Your task to perform on an android device: turn off improve location accuracy Image 0: 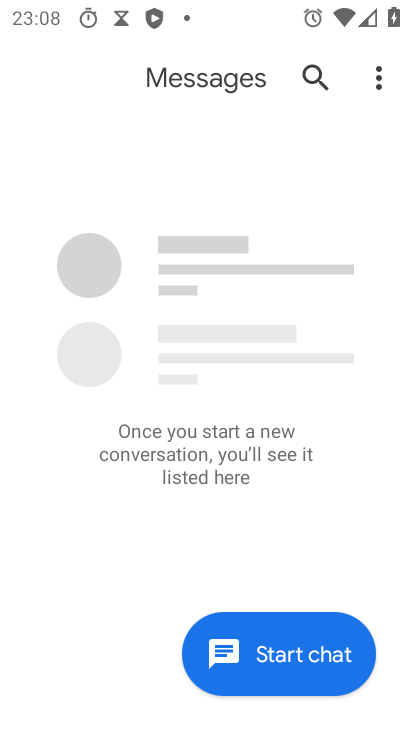
Step 0: press back button
Your task to perform on an android device: turn off improve location accuracy Image 1: 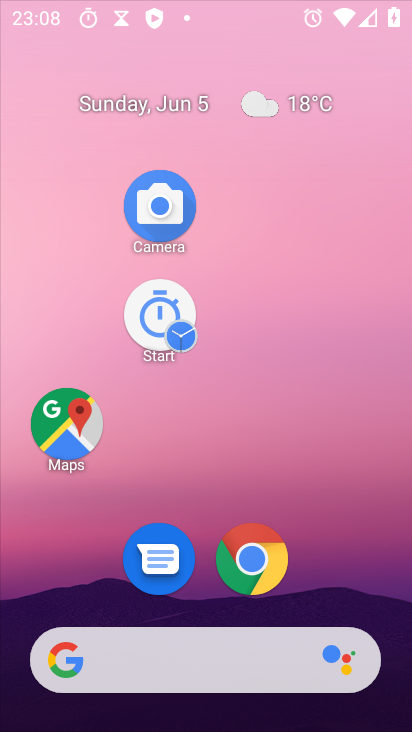
Step 1: drag from (250, 708) to (168, 114)
Your task to perform on an android device: turn off improve location accuracy Image 2: 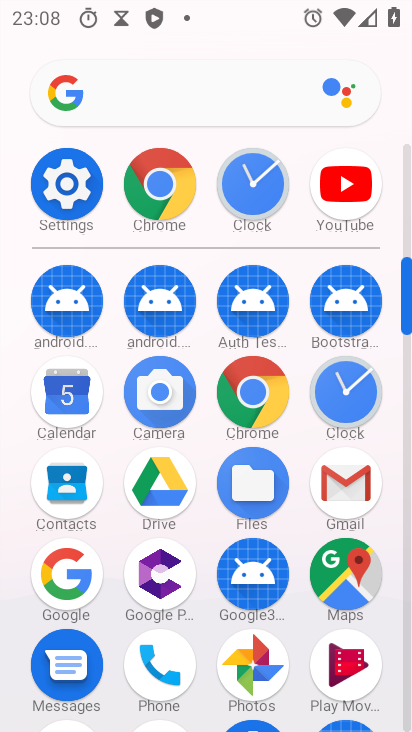
Step 2: click (71, 190)
Your task to perform on an android device: turn off improve location accuracy Image 3: 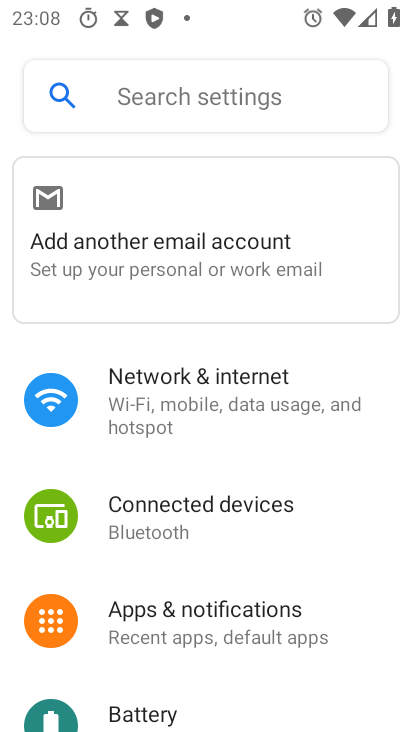
Step 3: drag from (184, 586) to (126, 331)
Your task to perform on an android device: turn off improve location accuracy Image 4: 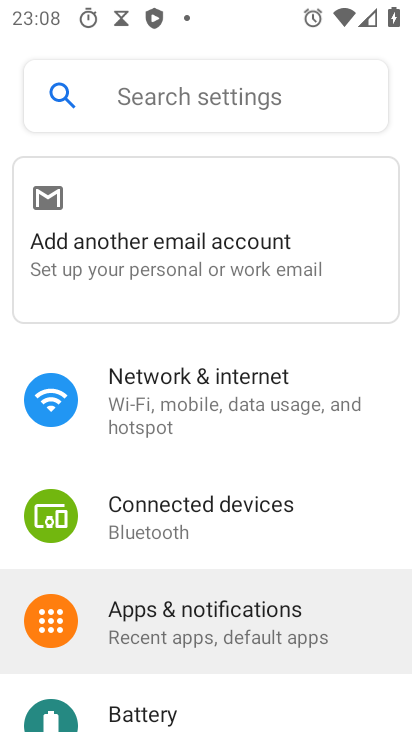
Step 4: drag from (139, 459) to (141, 276)
Your task to perform on an android device: turn off improve location accuracy Image 5: 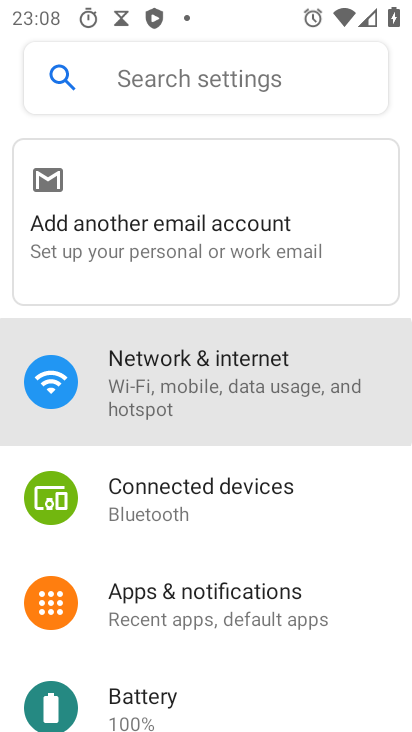
Step 5: drag from (204, 561) to (204, 360)
Your task to perform on an android device: turn off improve location accuracy Image 6: 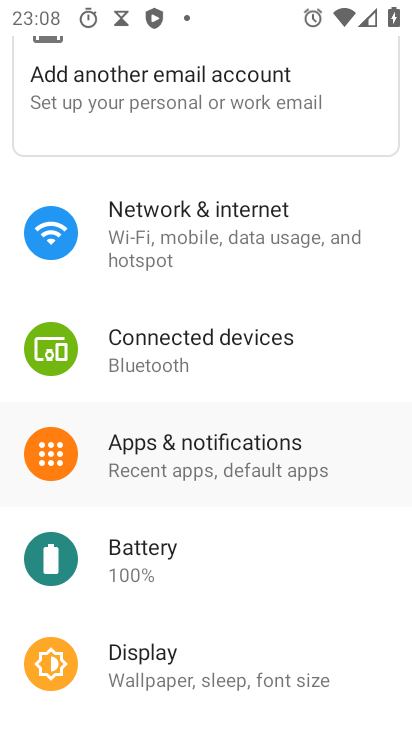
Step 6: drag from (212, 519) to (188, 331)
Your task to perform on an android device: turn off improve location accuracy Image 7: 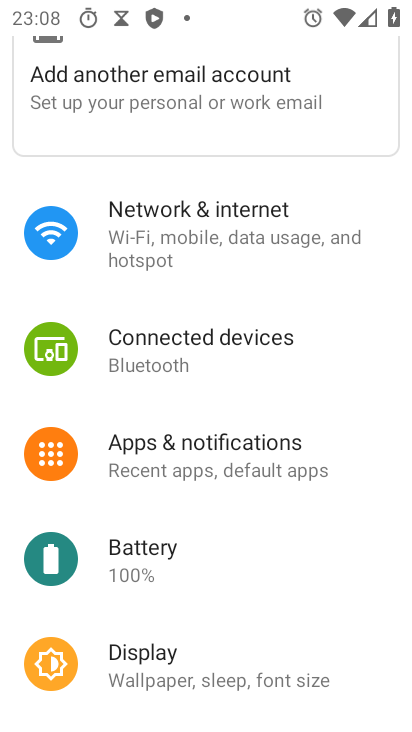
Step 7: drag from (183, 653) to (165, 351)
Your task to perform on an android device: turn off improve location accuracy Image 8: 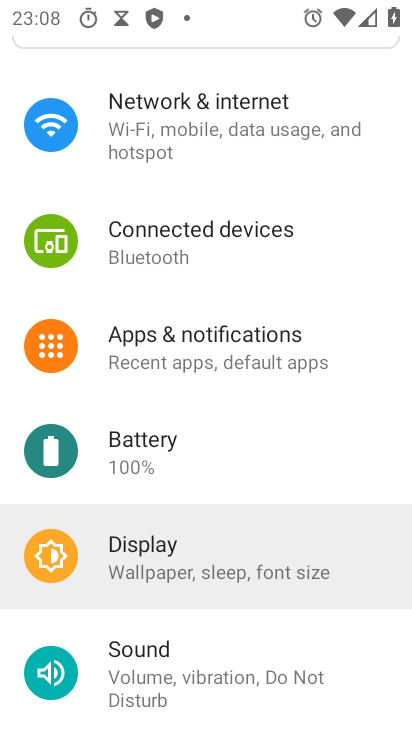
Step 8: drag from (190, 573) to (193, 386)
Your task to perform on an android device: turn off improve location accuracy Image 9: 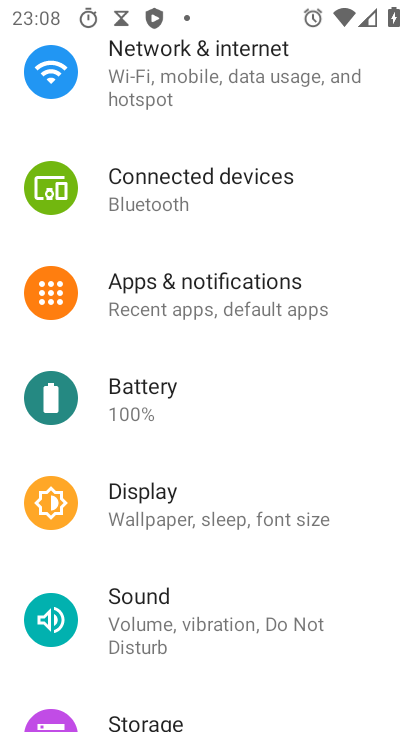
Step 9: drag from (218, 637) to (178, 345)
Your task to perform on an android device: turn off improve location accuracy Image 10: 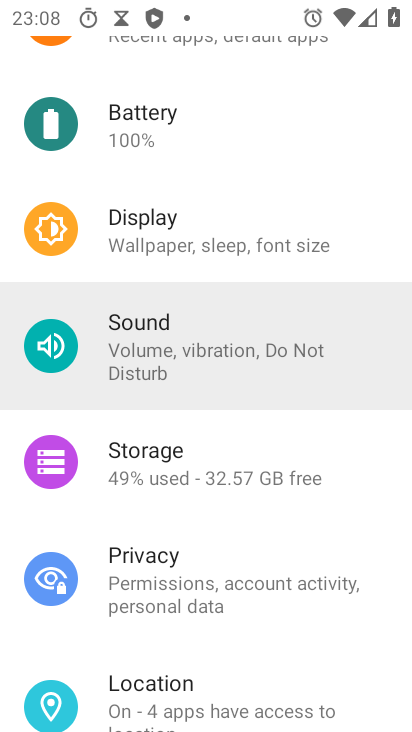
Step 10: drag from (234, 572) to (224, 333)
Your task to perform on an android device: turn off improve location accuracy Image 11: 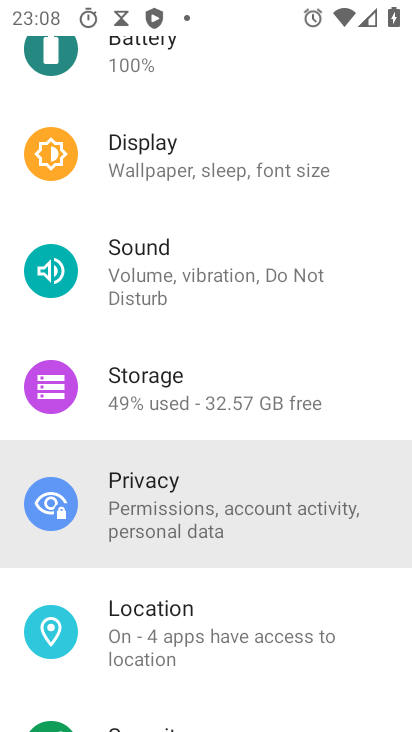
Step 11: drag from (235, 532) to (235, 321)
Your task to perform on an android device: turn off improve location accuracy Image 12: 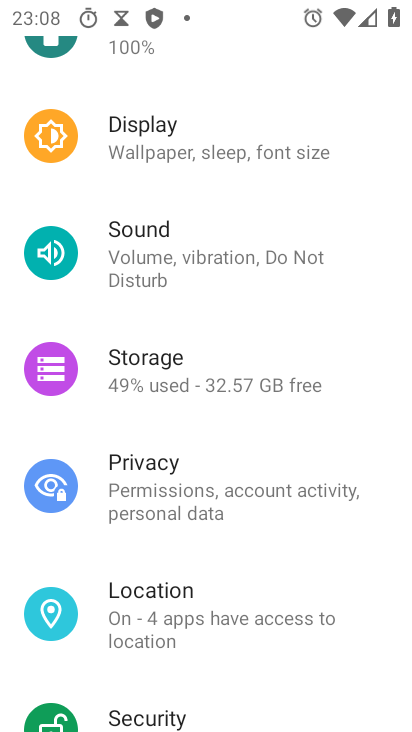
Step 12: click (150, 621)
Your task to perform on an android device: turn off improve location accuracy Image 13: 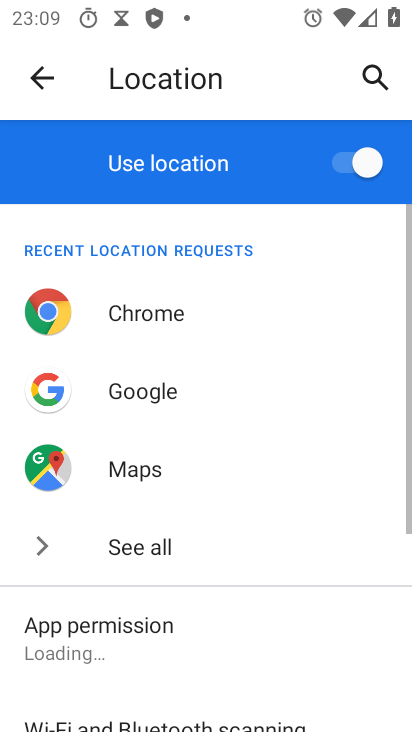
Step 13: drag from (96, 644) to (76, 385)
Your task to perform on an android device: turn off improve location accuracy Image 14: 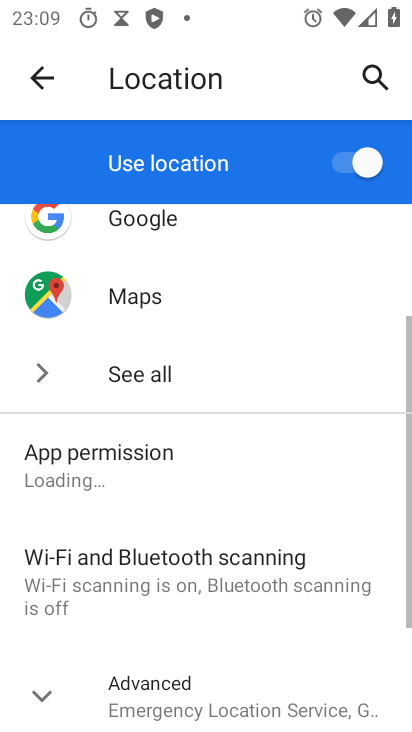
Step 14: drag from (143, 438) to (143, 251)
Your task to perform on an android device: turn off improve location accuracy Image 15: 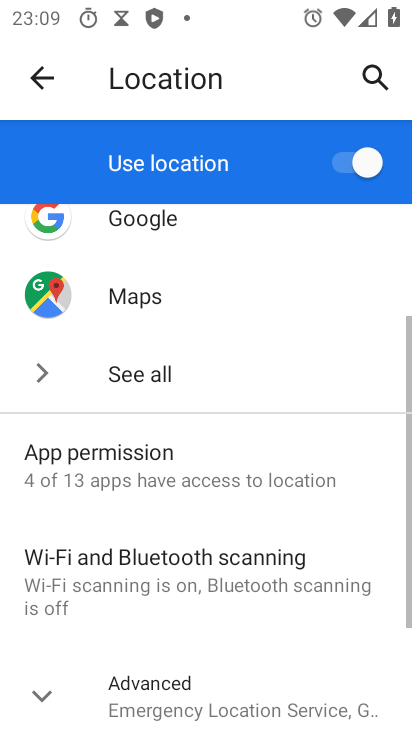
Step 15: click (163, 700)
Your task to perform on an android device: turn off improve location accuracy Image 16: 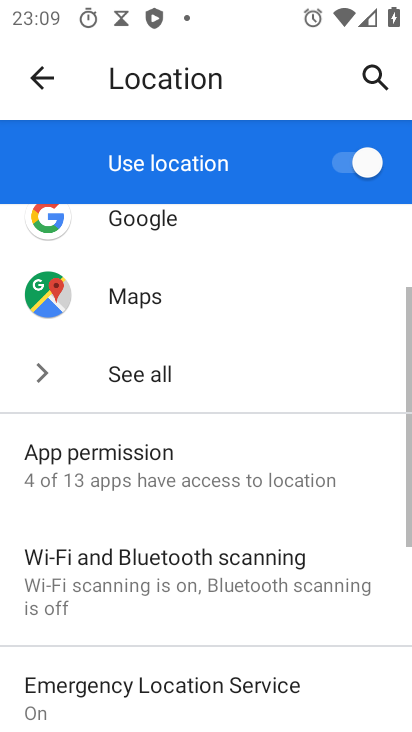
Step 16: drag from (157, 658) to (148, 358)
Your task to perform on an android device: turn off improve location accuracy Image 17: 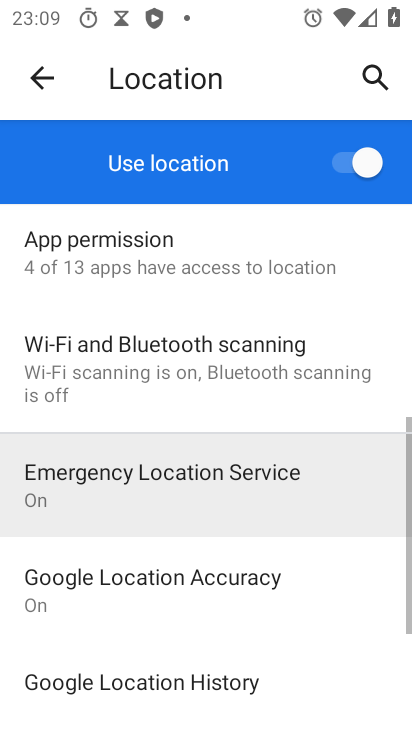
Step 17: drag from (179, 607) to (157, 402)
Your task to perform on an android device: turn off improve location accuracy Image 18: 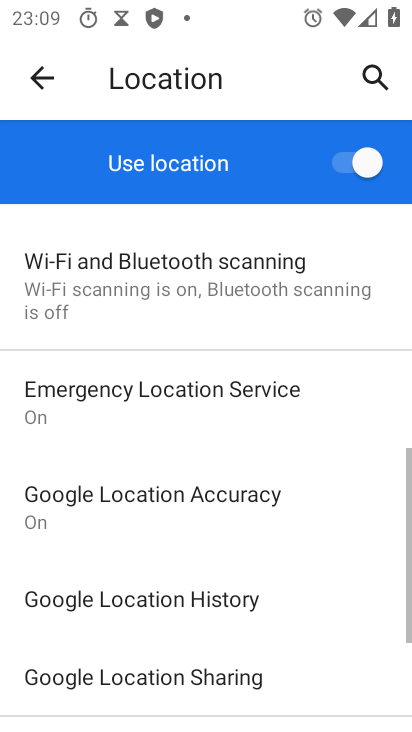
Step 18: drag from (157, 614) to (165, 374)
Your task to perform on an android device: turn off improve location accuracy Image 19: 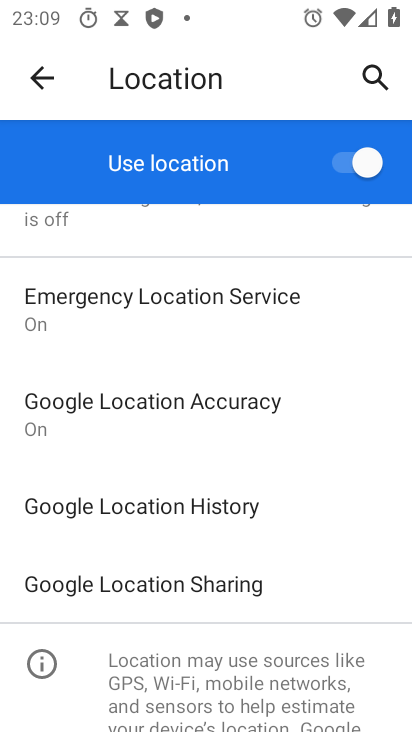
Step 19: click (128, 380)
Your task to perform on an android device: turn off improve location accuracy Image 20: 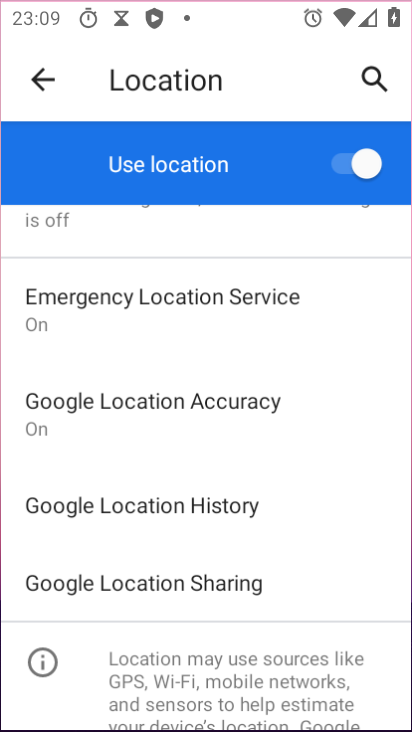
Step 20: click (131, 395)
Your task to perform on an android device: turn off improve location accuracy Image 21: 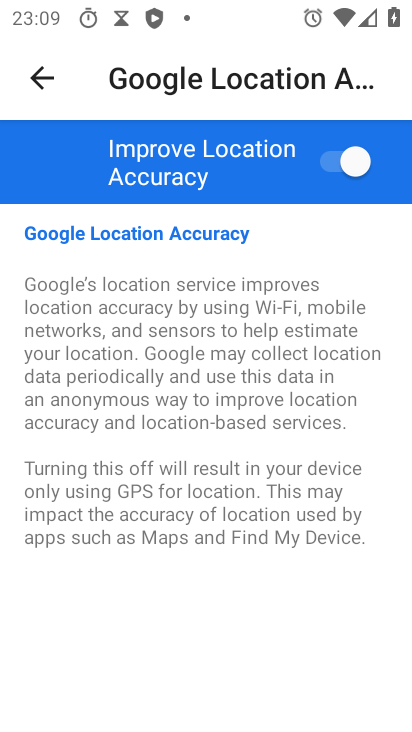
Step 21: click (345, 152)
Your task to perform on an android device: turn off improve location accuracy Image 22: 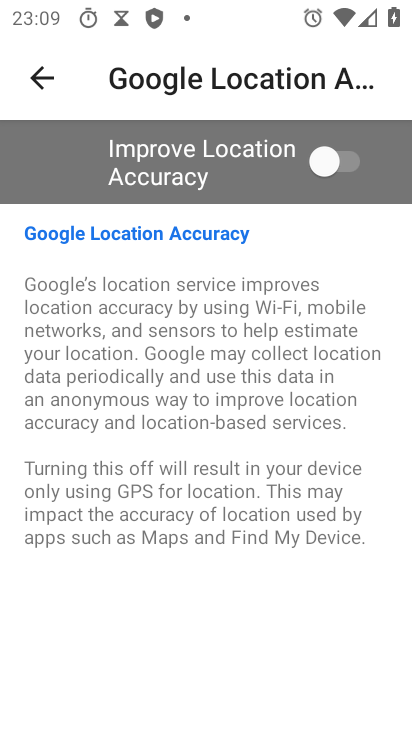
Step 22: task complete